Your task to perform on an android device: turn on improve location accuracy Image 0: 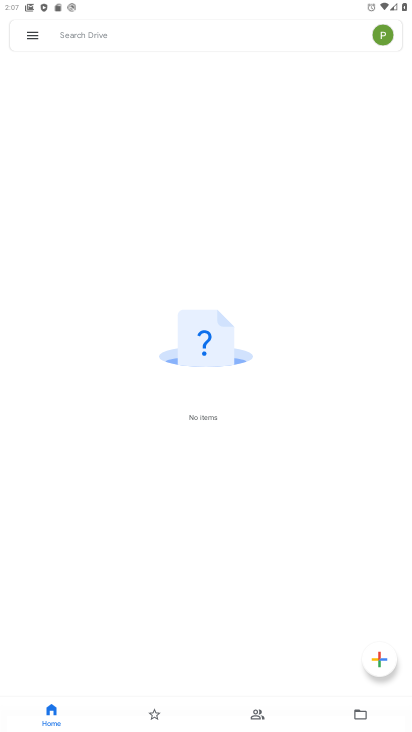
Step 0: press home button
Your task to perform on an android device: turn on improve location accuracy Image 1: 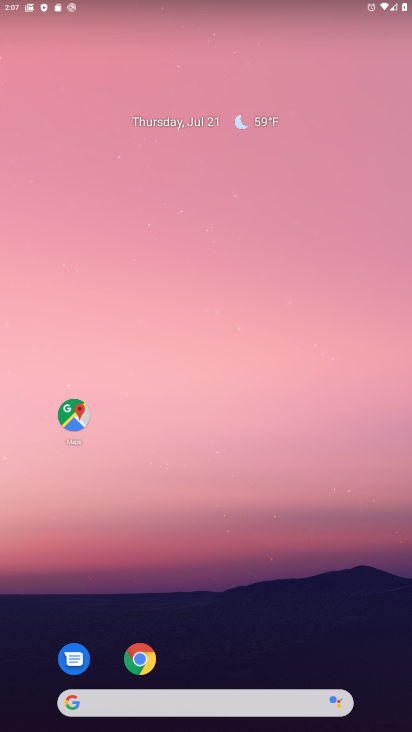
Step 1: drag from (313, 649) to (327, 166)
Your task to perform on an android device: turn on improve location accuracy Image 2: 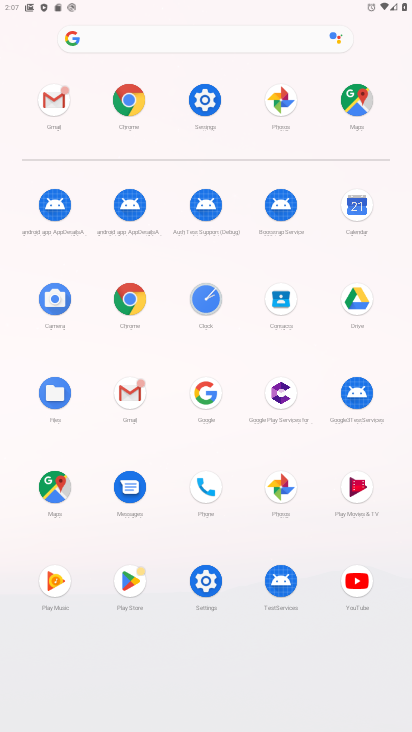
Step 2: click (214, 97)
Your task to perform on an android device: turn on improve location accuracy Image 3: 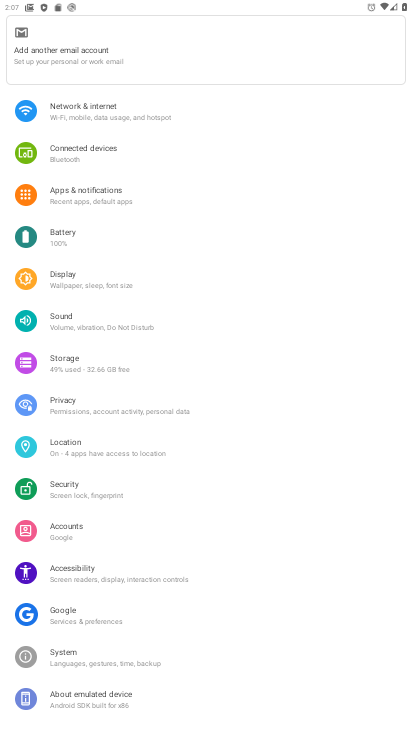
Step 3: click (130, 453)
Your task to perform on an android device: turn on improve location accuracy Image 4: 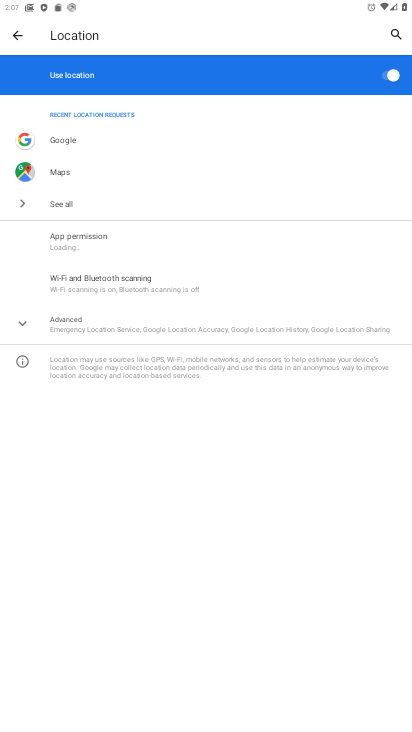
Step 4: click (145, 330)
Your task to perform on an android device: turn on improve location accuracy Image 5: 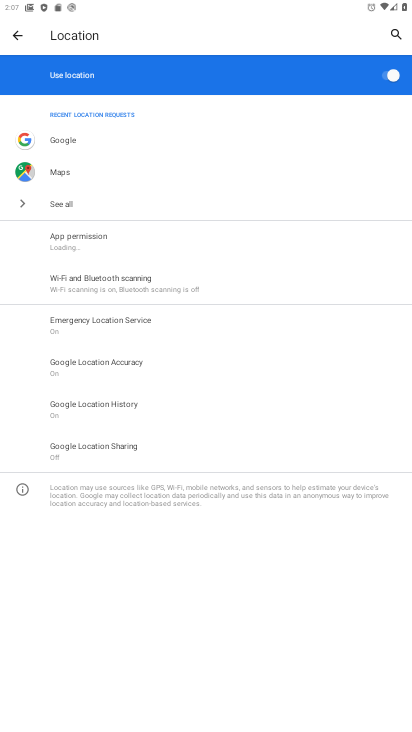
Step 5: click (131, 366)
Your task to perform on an android device: turn on improve location accuracy Image 6: 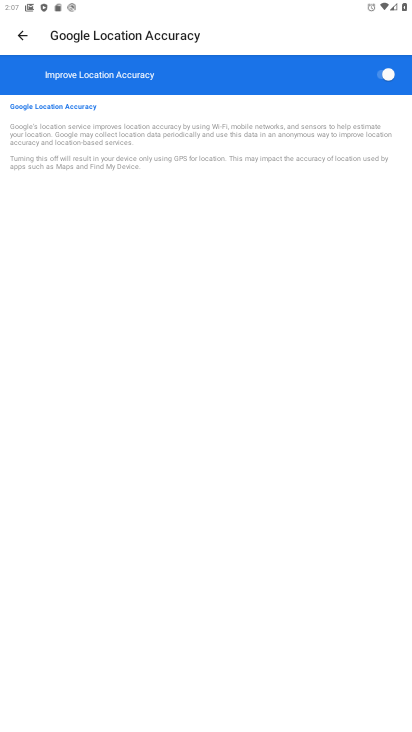
Step 6: task complete